Your task to perform on an android device: Open the web browser Image 0: 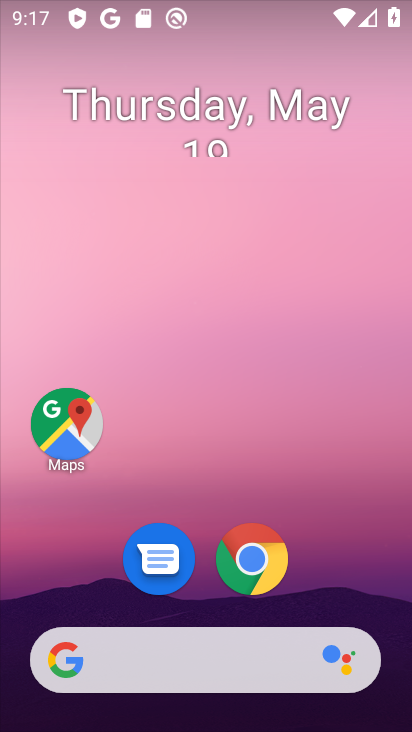
Step 0: click (258, 552)
Your task to perform on an android device: Open the web browser Image 1: 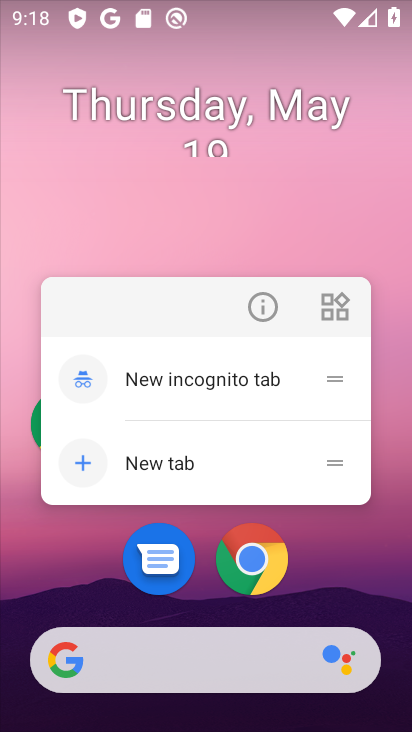
Step 1: click (260, 558)
Your task to perform on an android device: Open the web browser Image 2: 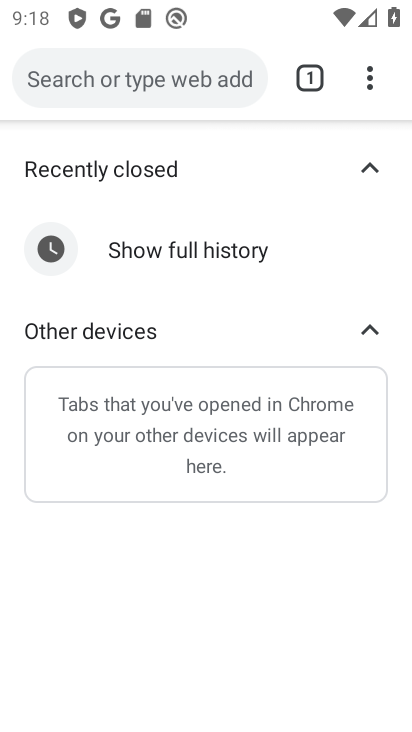
Step 2: task complete